Your task to perform on an android device: Open Reddit.com Image 0: 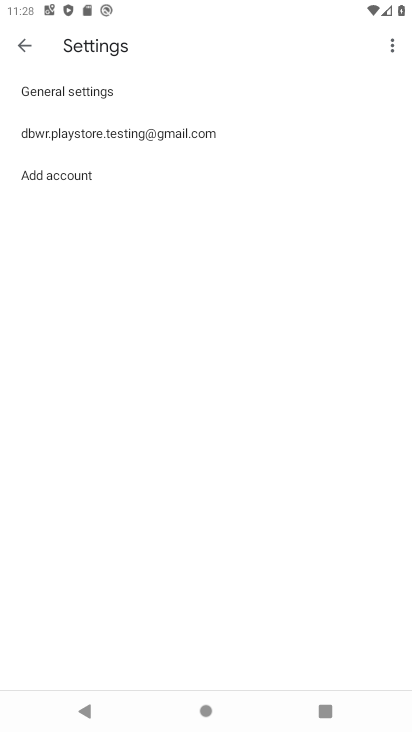
Step 0: press home button
Your task to perform on an android device: Open Reddit.com Image 1: 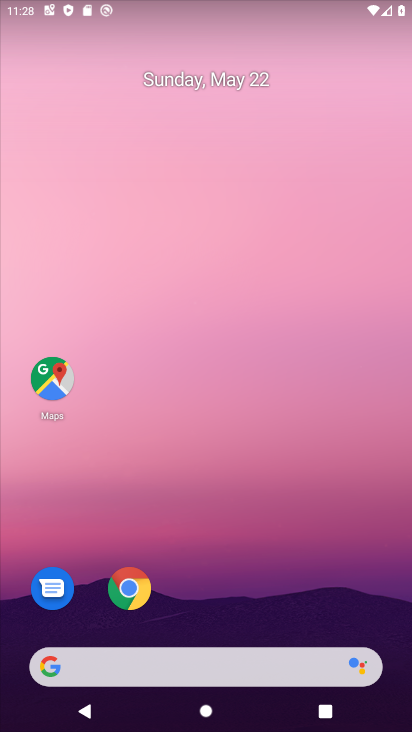
Step 1: drag from (222, 686) to (152, 243)
Your task to perform on an android device: Open Reddit.com Image 2: 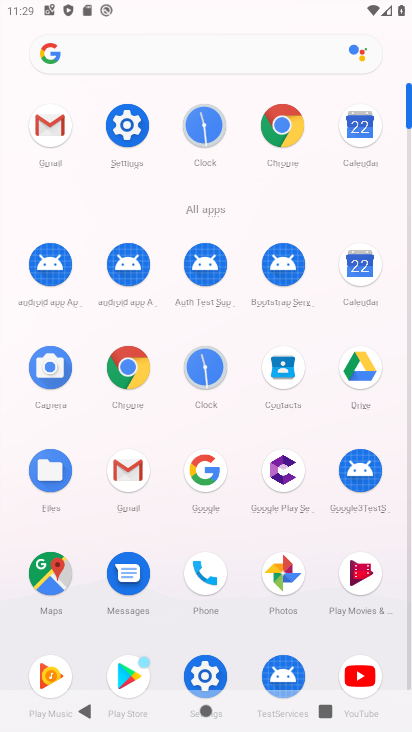
Step 2: click (289, 143)
Your task to perform on an android device: Open Reddit.com Image 3: 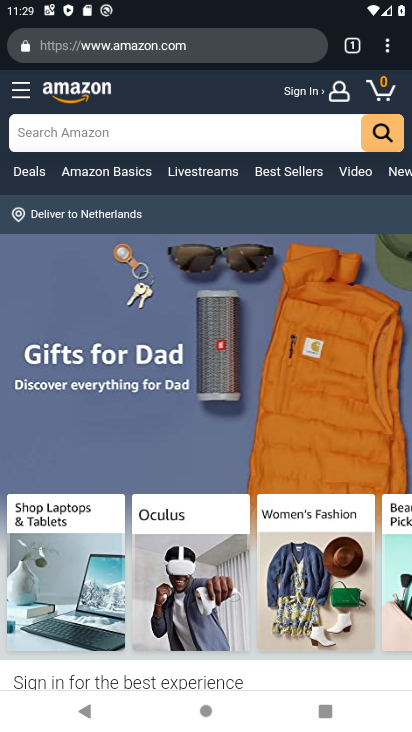
Step 3: click (167, 46)
Your task to perform on an android device: Open Reddit.com Image 4: 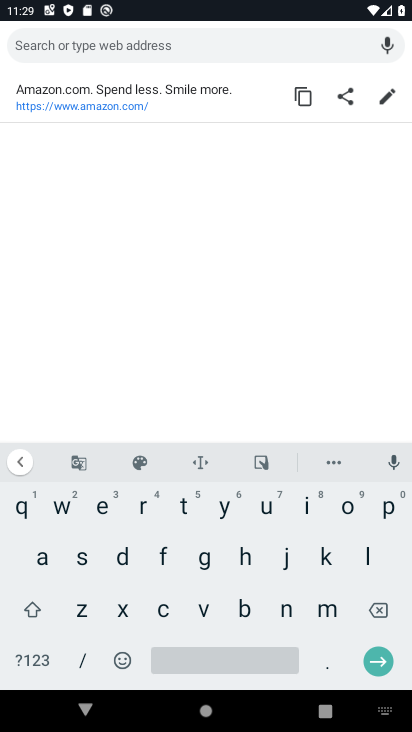
Step 4: click (142, 513)
Your task to perform on an android device: Open Reddit.com Image 5: 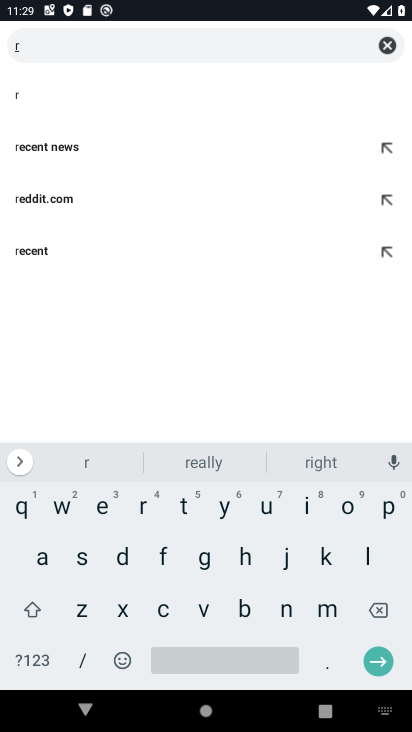
Step 5: click (97, 511)
Your task to perform on an android device: Open Reddit.com Image 6: 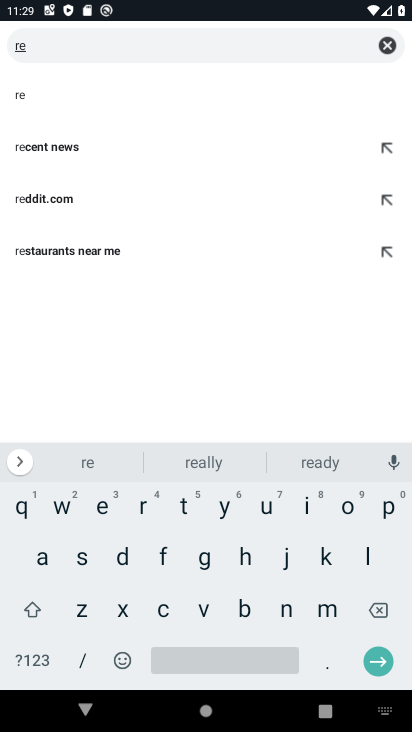
Step 6: click (61, 206)
Your task to perform on an android device: Open Reddit.com Image 7: 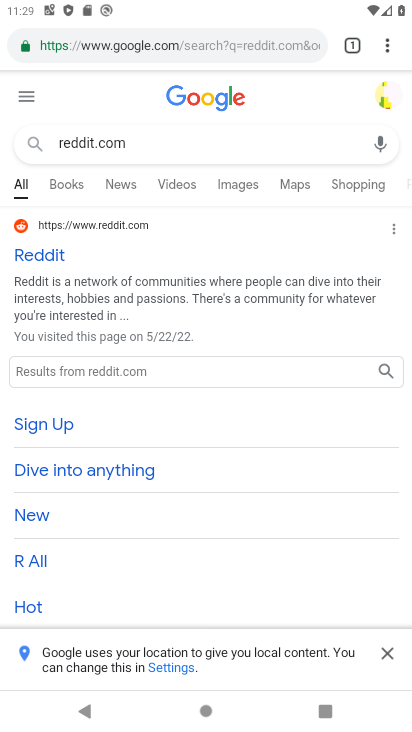
Step 7: click (40, 265)
Your task to perform on an android device: Open Reddit.com Image 8: 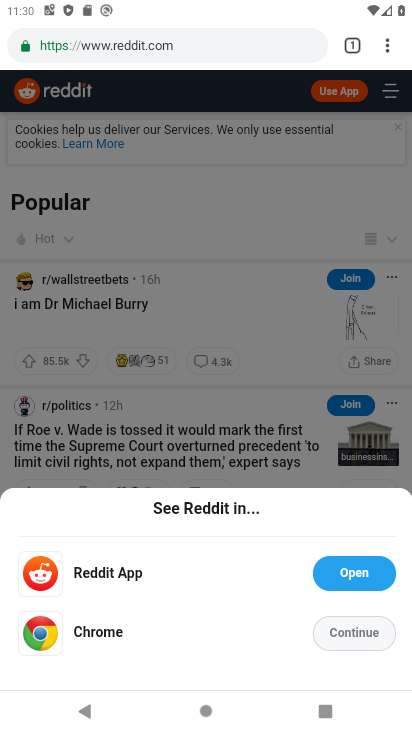
Step 8: click (364, 632)
Your task to perform on an android device: Open Reddit.com Image 9: 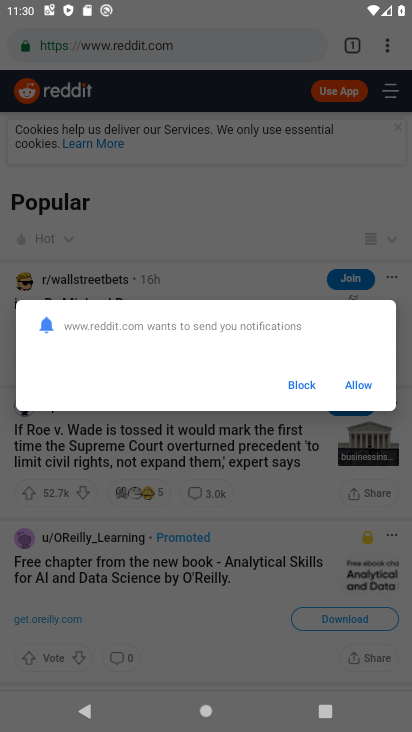
Step 9: click (308, 376)
Your task to perform on an android device: Open Reddit.com Image 10: 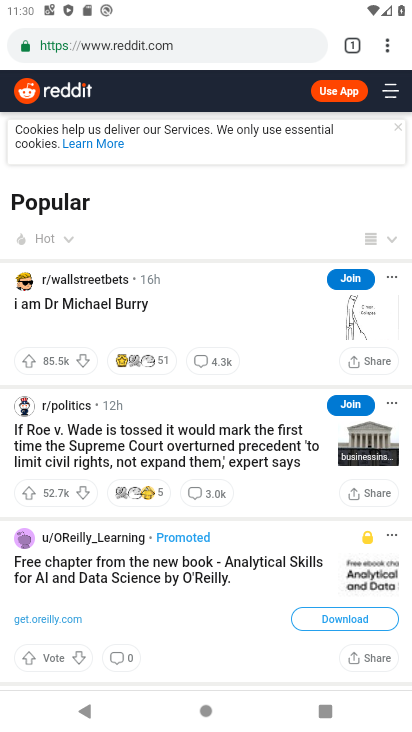
Step 10: task complete